Your task to perform on an android device: toggle javascript in the chrome app Image 0: 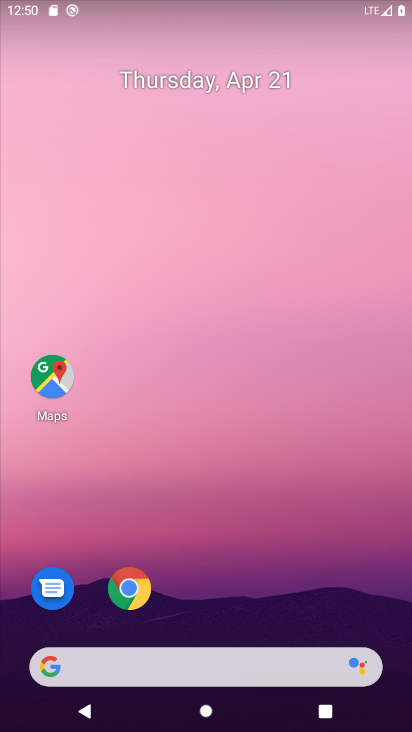
Step 0: click (126, 581)
Your task to perform on an android device: toggle javascript in the chrome app Image 1: 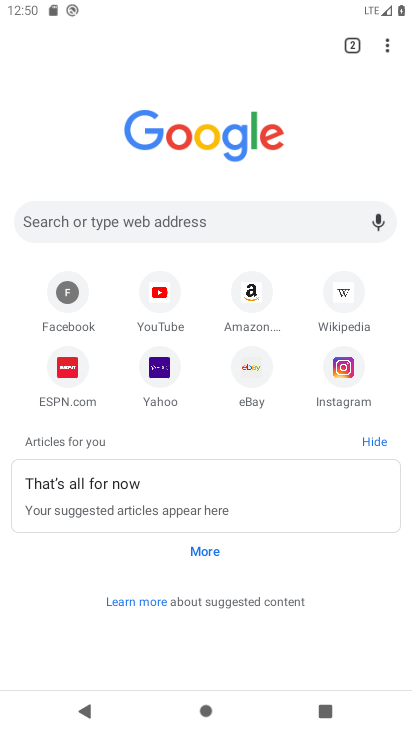
Step 1: click (385, 41)
Your task to perform on an android device: toggle javascript in the chrome app Image 2: 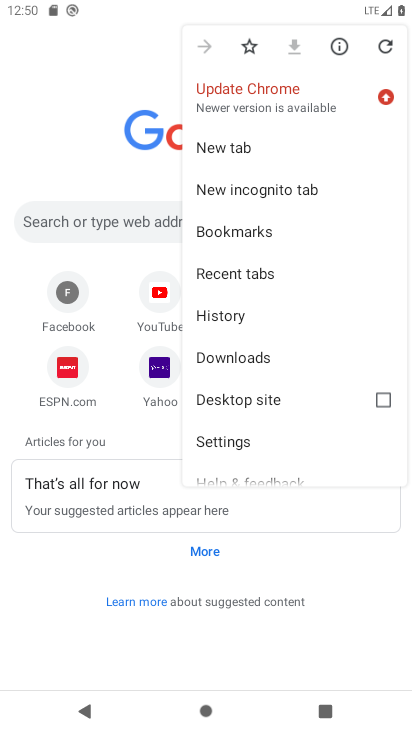
Step 2: click (263, 439)
Your task to perform on an android device: toggle javascript in the chrome app Image 3: 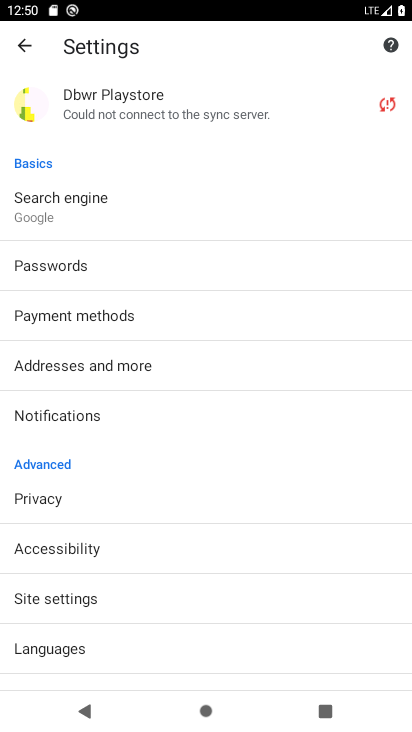
Step 3: click (126, 597)
Your task to perform on an android device: toggle javascript in the chrome app Image 4: 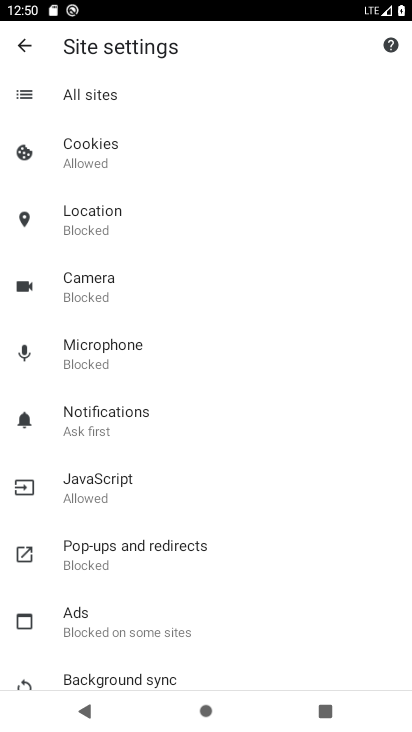
Step 4: click (117, 492)
Your task to perform on an android device: toggle javascript in the chrome app Image 5: 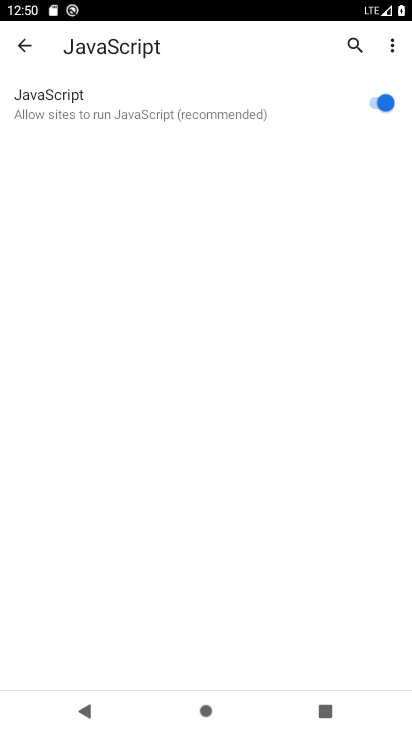
Step 5: click (375, 101)
Your task to perform on an android device: toggle javascript in the chrome app Image 6: 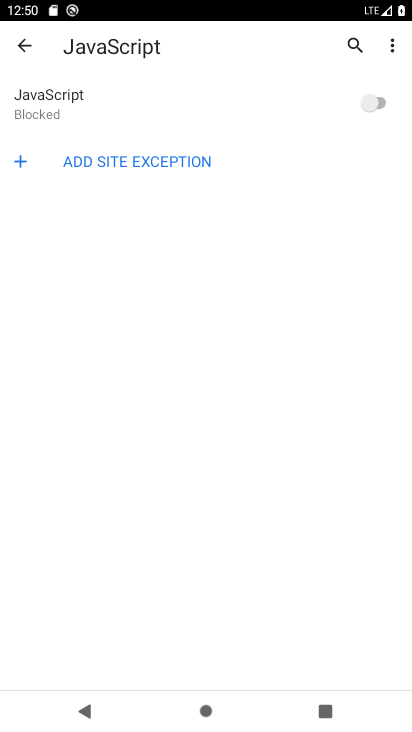
Step 6: task complete